Your task to perform on an android device: set default search engine in the chrome app Image 0: 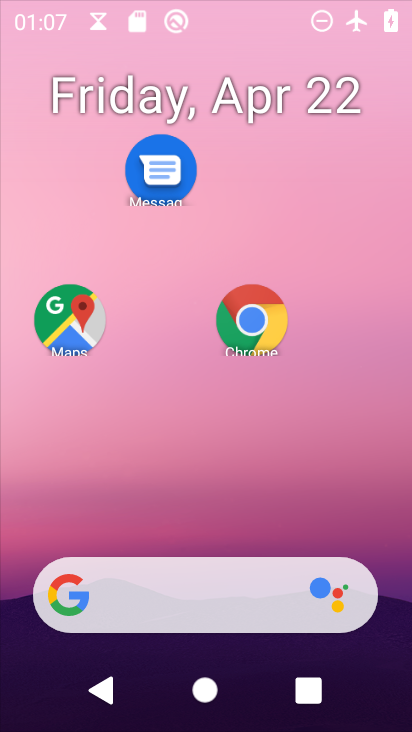
Step 0: click (252, 79)
Your task to perform on an android device: set default search engine in the chrome app Image 1: 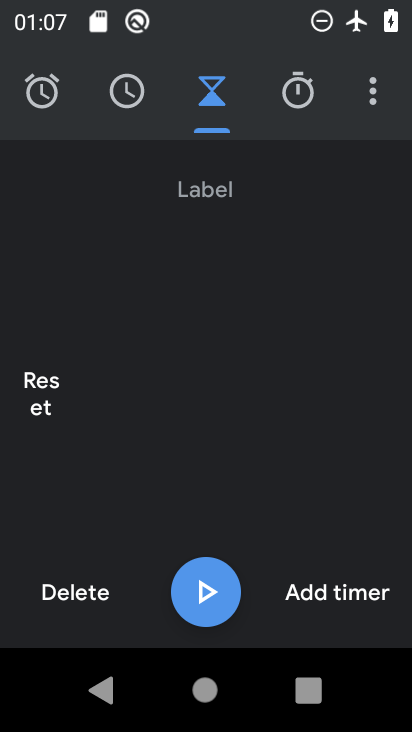
Step 1: press home button
Your task to perform on an android device: set default search engine in the chrome app Image 2: 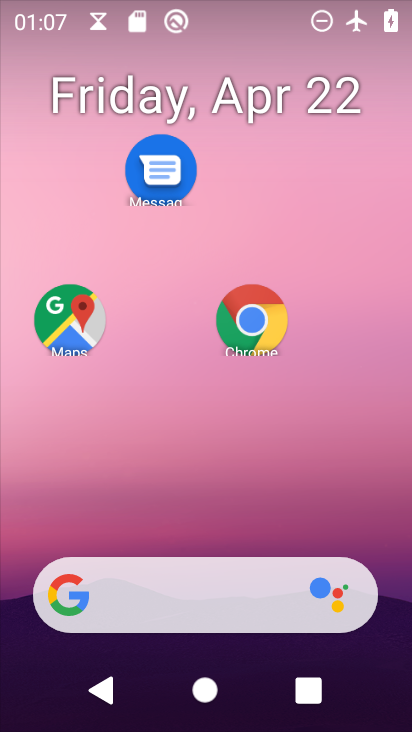
Step 2: click (255, 315)
Your task to perform on an android device: set default search engine in the chrome app Image 3: 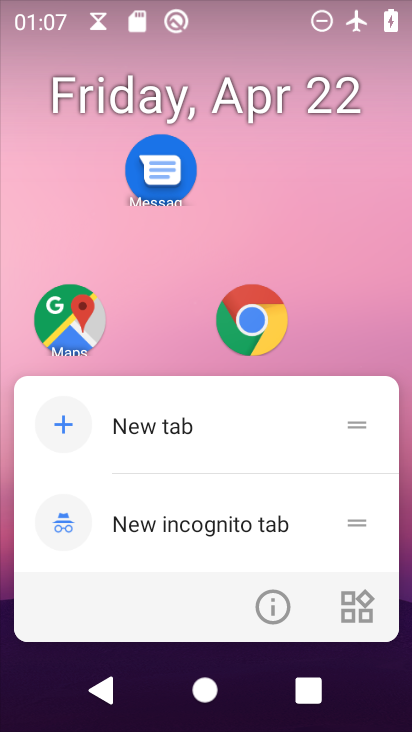
Step 3: click (262, 613)
Your task to perform on an android device: set default search engine in the chrome app Image 4: 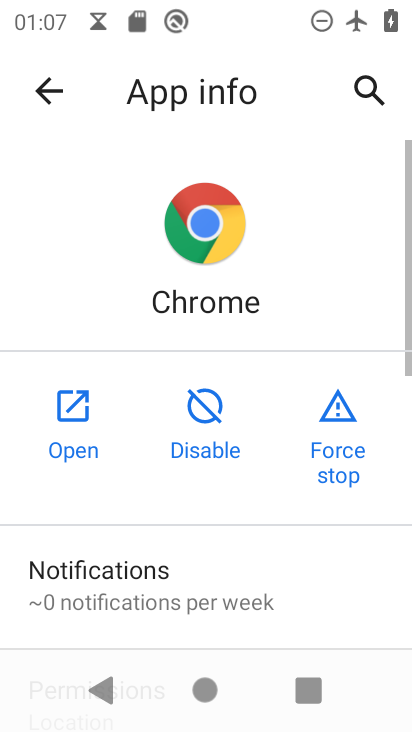
Step 4: click (42, 421)
Your task to perform on an android device: set default search engine in the chrome app Image 5: 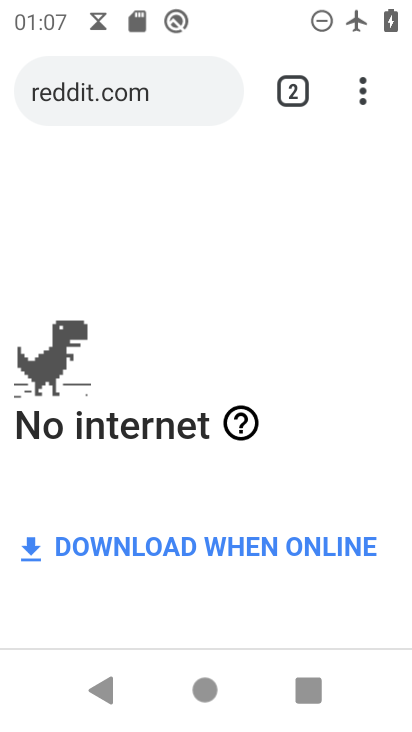
Step 5: drag from (367, 86) to (148, 478)
Your task to perform on an android device: set default search engine in the chrome app Image 6: 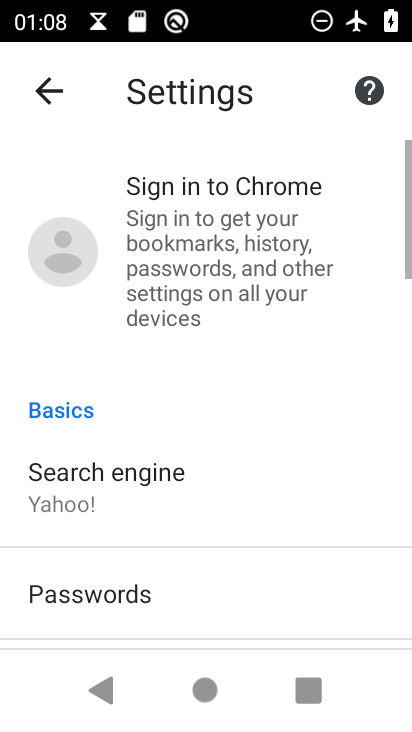
Step 6: click (118, 494)
Your task to perform on an android device: set default search engine in the chrome app Image 7: 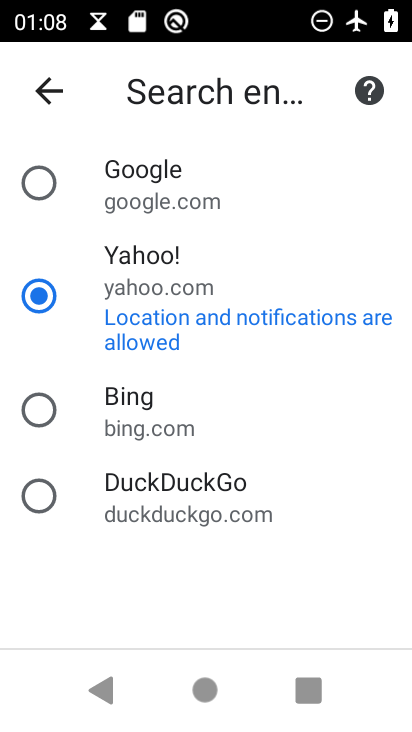
Step 7: click (96, 186)
Your task to perform on an android device: set default search engine in the chrome app Image 8: 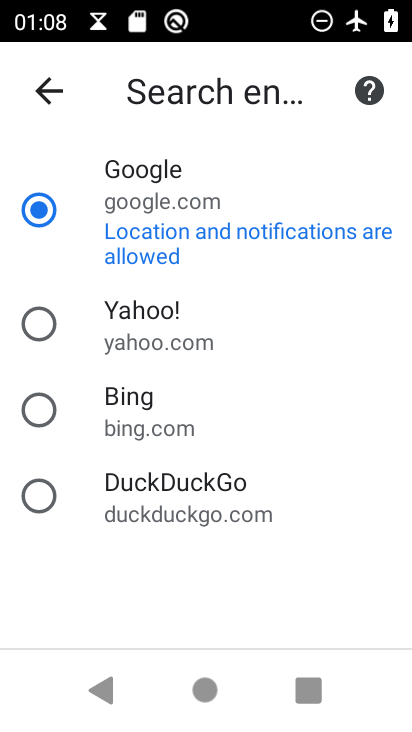
Step 8: task complete